Your task to perform on an android device: delete location history Image 0: 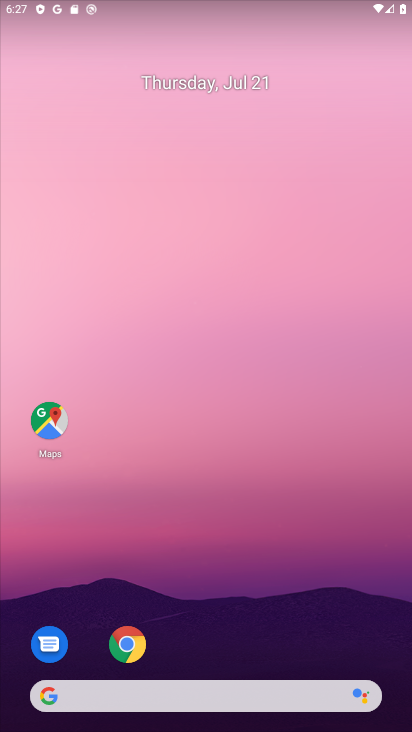
Step 0: drag from (250, 577) to (227, 115)
Your task to perform on an android device: delete location history Image 1: 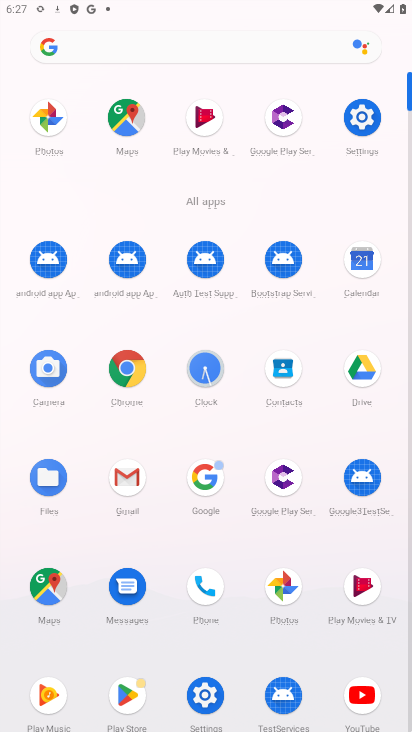
Step 1: click (212, 681)
Your task to perform on an android device: delete location history Image 2: 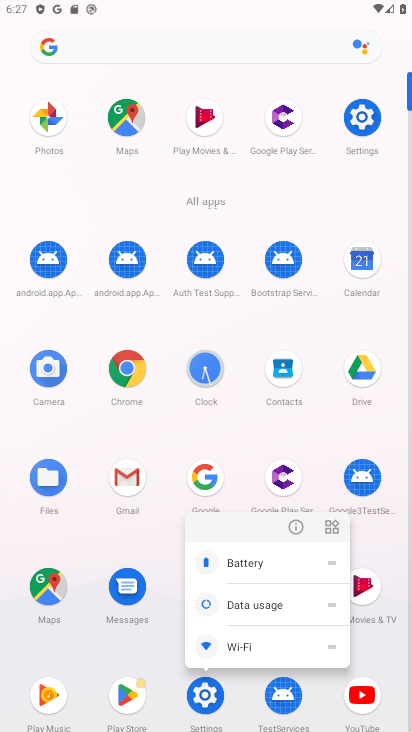
Step 2: click (206, 706)
Your task to perform on an android device: delete location history Image 3: 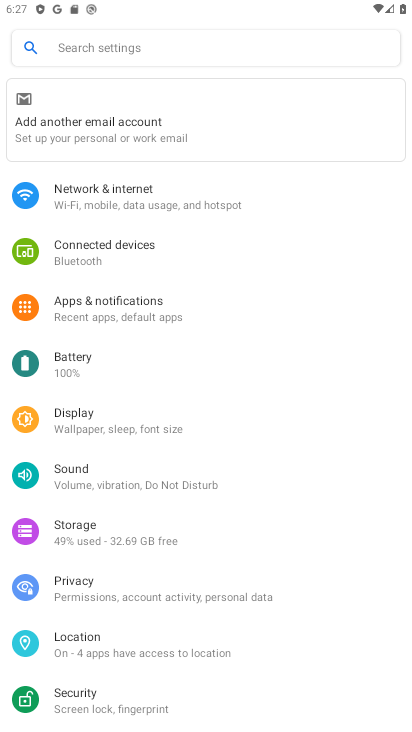
Step 3: click (153, 635)
Your task to perform on an android device: delete location history Image 4: 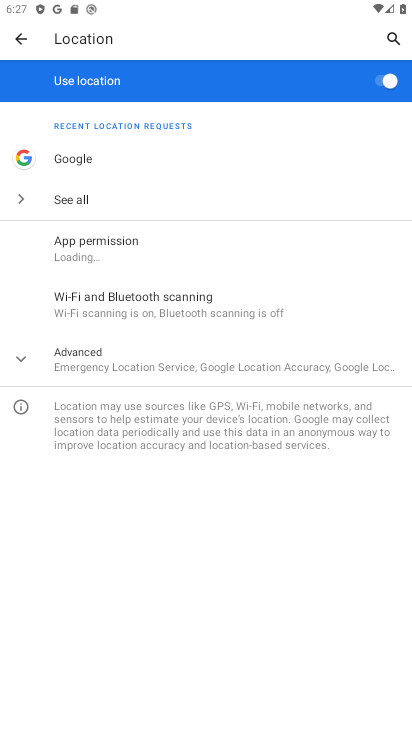
Step 4: task complete